Your task to perform on an android device: turn smart compose on in the gmail app Image 0: 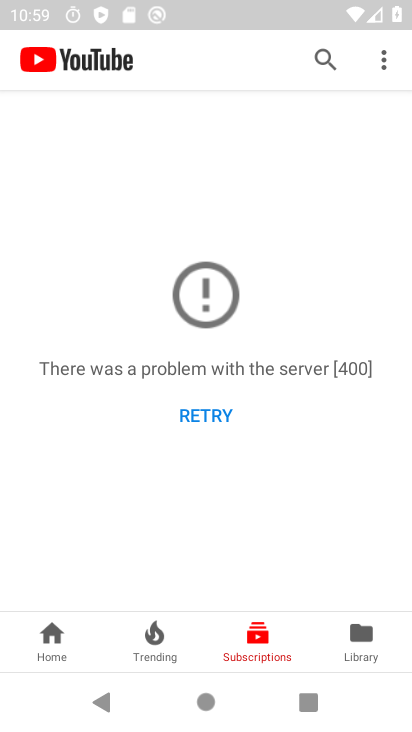
Step 0: press home button
Your task to perform on an android device: turn smart compose on in the gmail app Image 1: 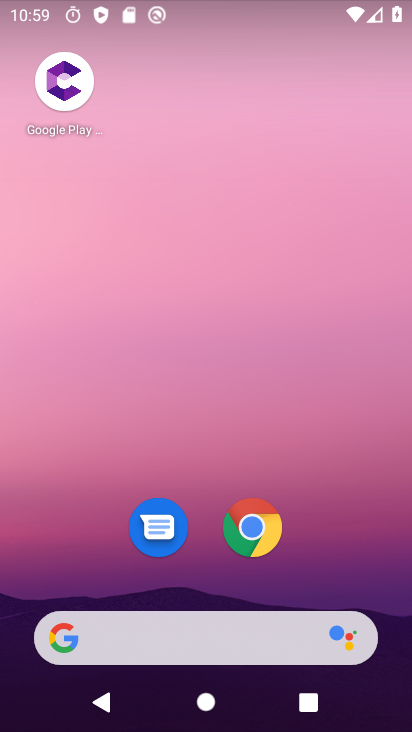
Step 1: drag from (339, 575) to (356, 70)
Your task to perform on an android device: turn smart compose on in the gmail app Image 2: 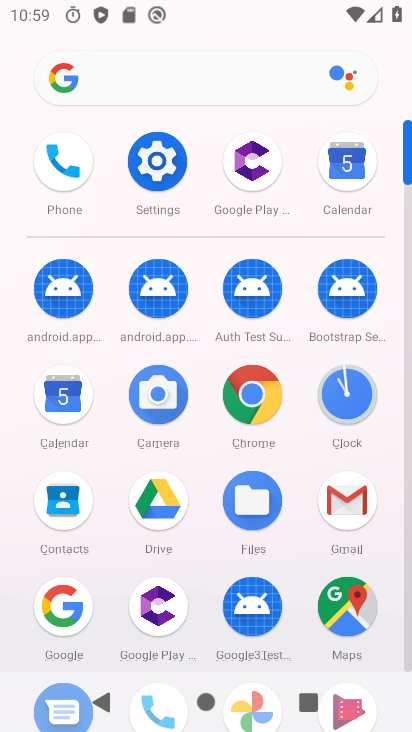
Step 2: click (343, 526)
Your task to perform on an android device: turn smart compose on in the gmail app Image 3: 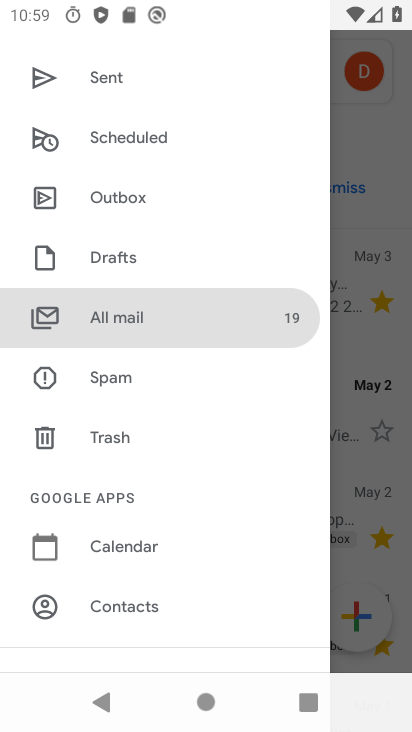
Step 3: drag from (161, 560) to (184, 208)
Your task to perform on an android device: turn smart compose on in the gmail app Image 4: 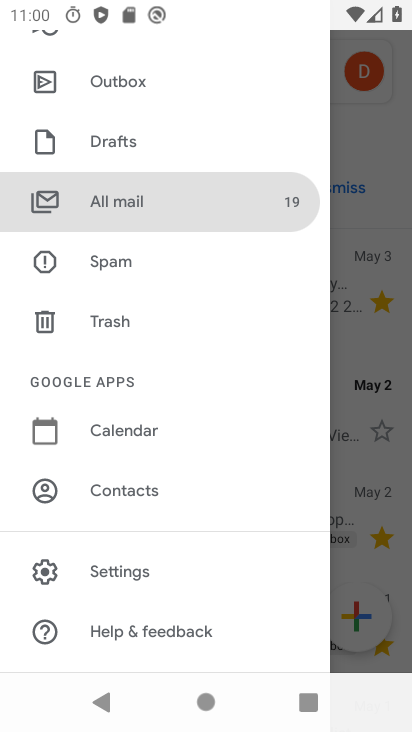
Step 4: click (173, 572)
Your task to perform on an android device: turn smart compose on in the gmail app Image 5: 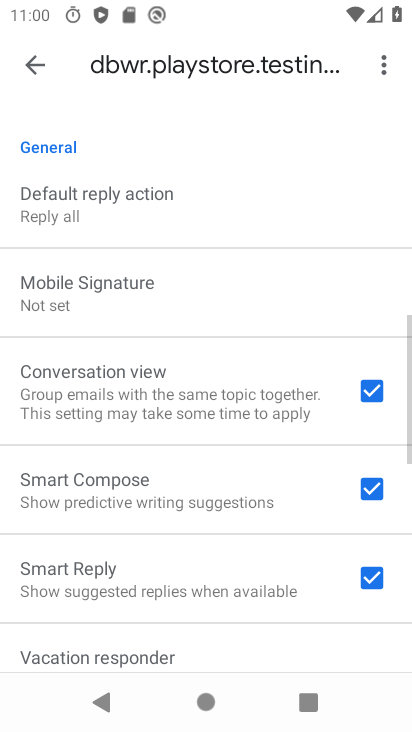
Step 5: task complete